Your task to perform on an android device: turn on notifications settings in the gmail app Image 0: 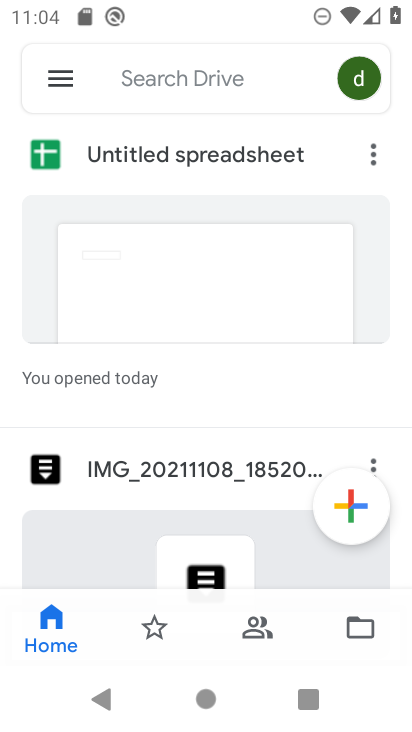
Step 0: press home button
Your task to perform on an android device: turn on notifications settings in the gmail app Image 1: 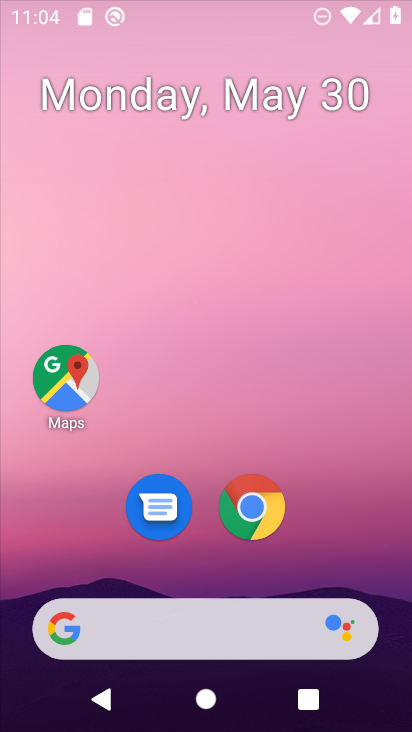
Step 1: drag from (396, 665) to (353, 73)
Your task to perform on an android device: turn on notifications settings in the gmail app Image 2: 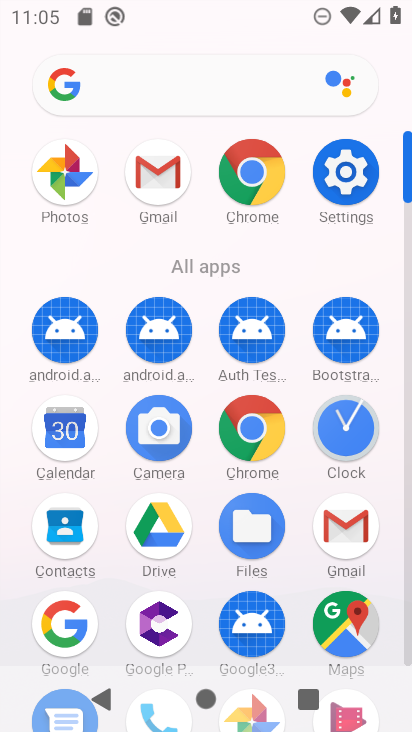
Step 2: click (338, 543)
Your task to perform on an android device: turn on notifications settings in the gmail app Image 3: 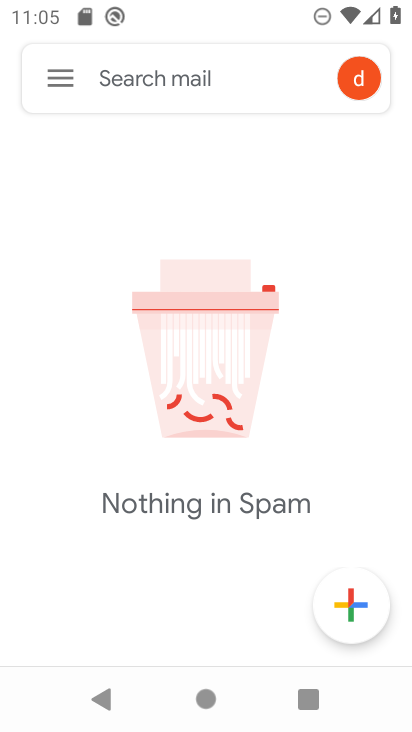
Step 3: click (50, 80)
Your task to perform on an android device: turn on notifications settings in the gmail app Image 4: 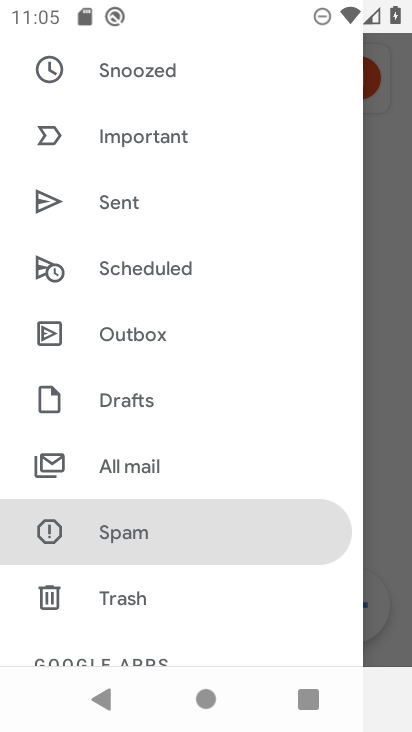
Step 4: drag from (118, 532) to (197, 77)
Your task to perform on an android device: turn on notifications settings in the gmail app Image 5: 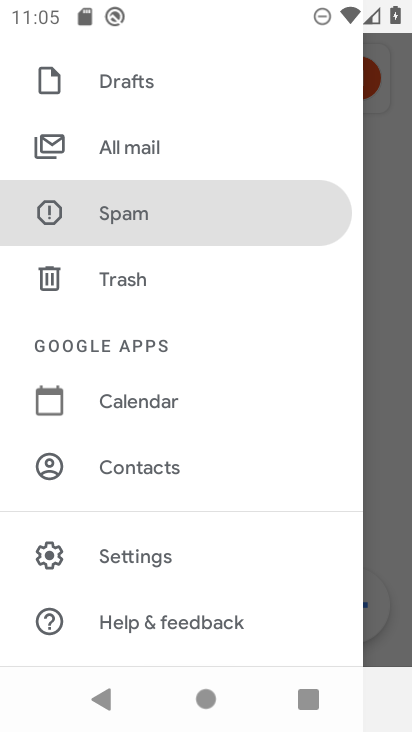
Step 5: click (164, 561)
Your task to perform on an android device: turn on notifications settings in the gmail app Image 6: 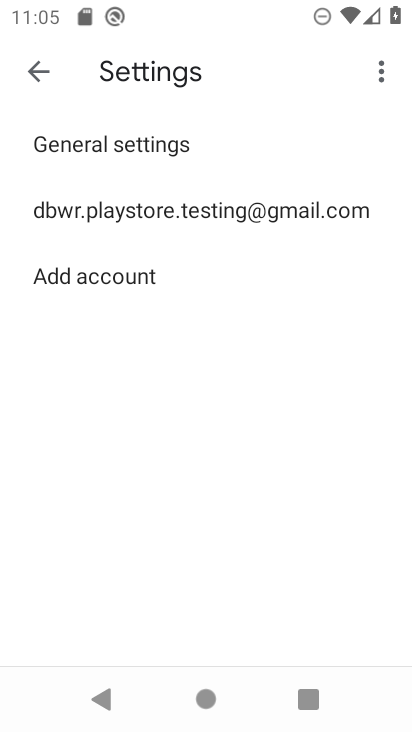
Step 6: click (150, 214)
Your task to perform on an android device: turn on notifications settings in the gmail app Image 7: 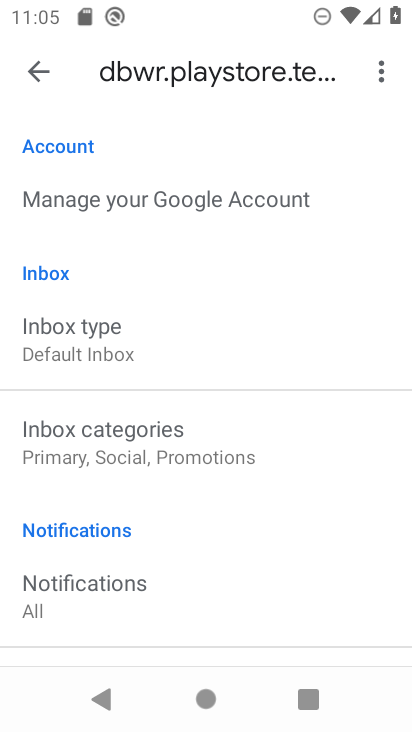
Step 7: click (135, 605)
Your task to perform on an android device: turn on notifications settings in the gmail app Image 8: 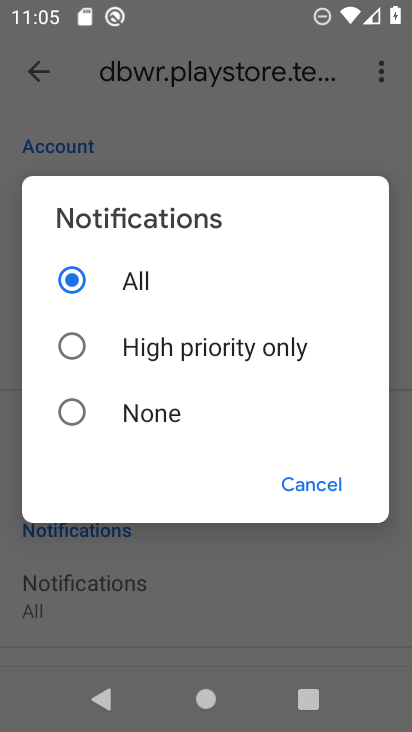
Step 8: task complete